Your task to perform on an android device: check google app version Image 0: 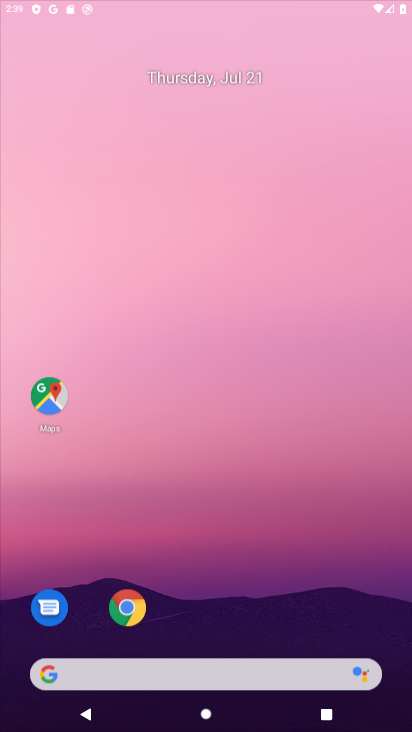
Step 0: press home button
Your task to perform on an android device: check google app version Image 1: 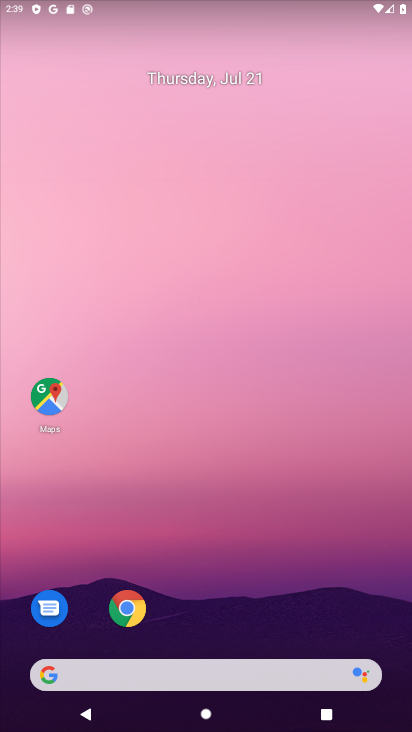
Step 1: drag from (201, 642) to (213, 92)
Your task to perform on an android device: check google app version Image 2: 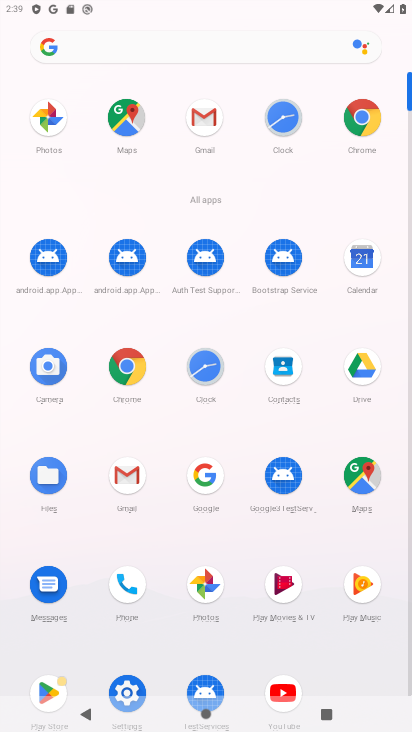
Step 2: click (202, 471)
Your task to perform on an android device: check google app version Image 3: 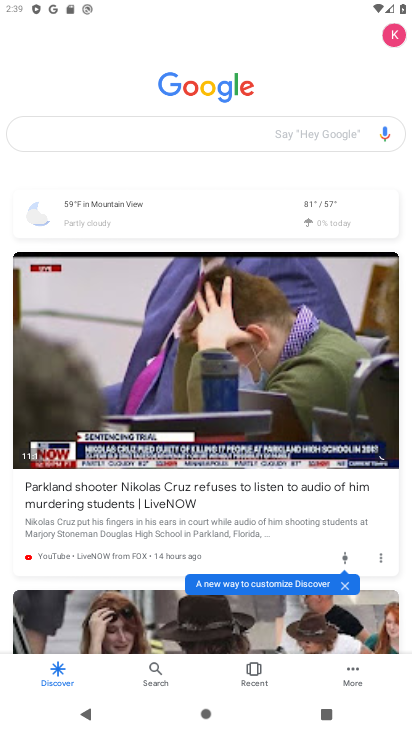
Step 3: click (391, 30)
Your task to perform on an android device: check google app version Image 4: 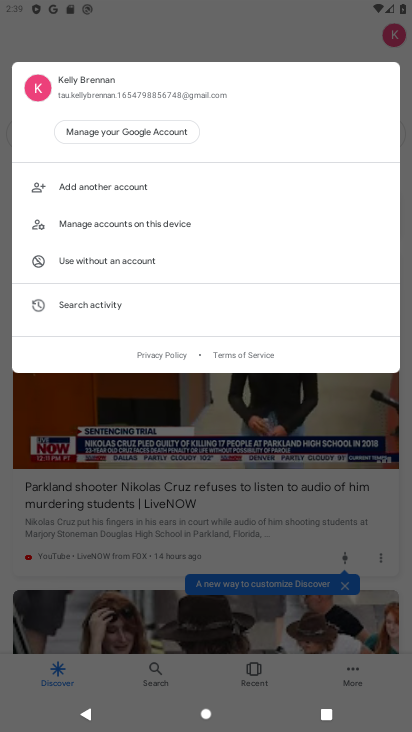
Step 4: click (83, 463)
Your task to perform on an android device: check google app version Image 5: 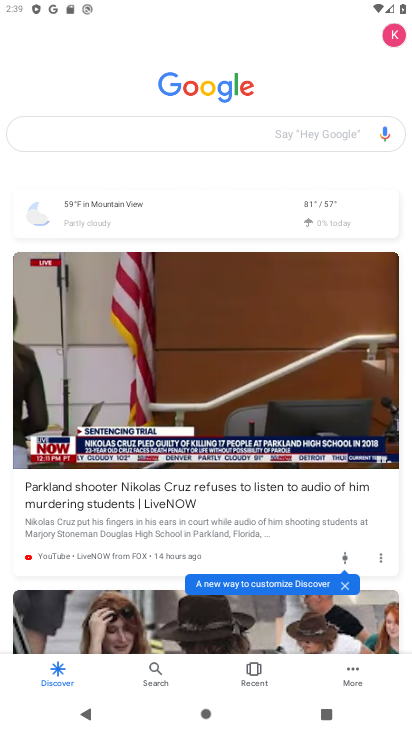
Step 5: click (351, 674)
Your task to perform on an android device: check google app version Image 6: 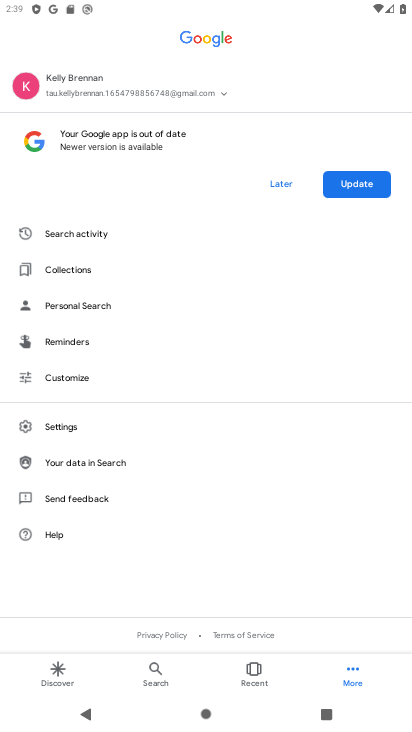
Step 6: click (89, 423)
Your task to perform on an android device: check google app version Image 7: 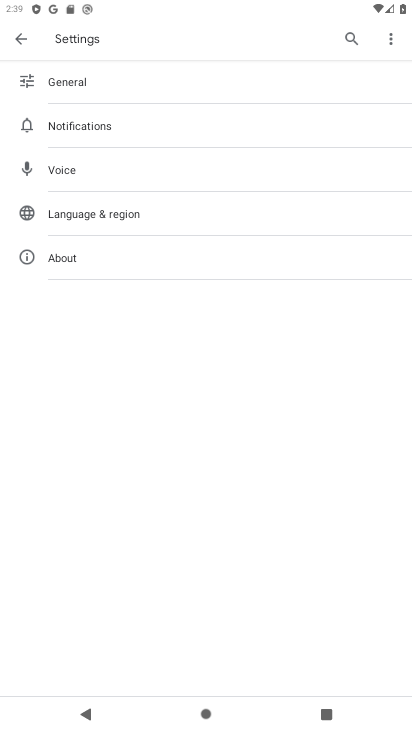
Step 7: click (69, 264)
Your task to perform on an android device: check google app version Image 8: 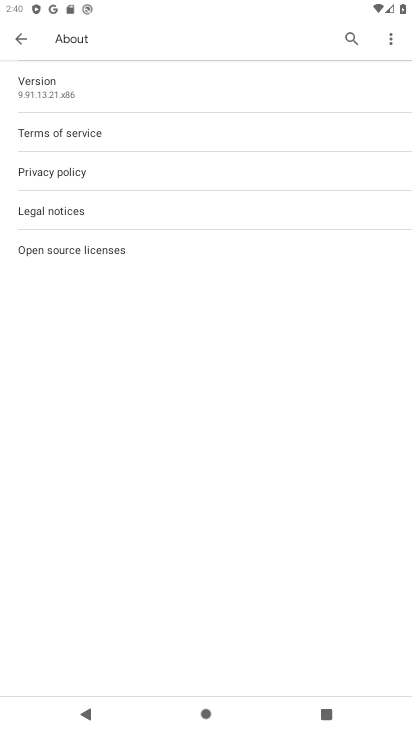
Step 8: task complete